Your task to perform on an android device: Open my contact list Image 0: 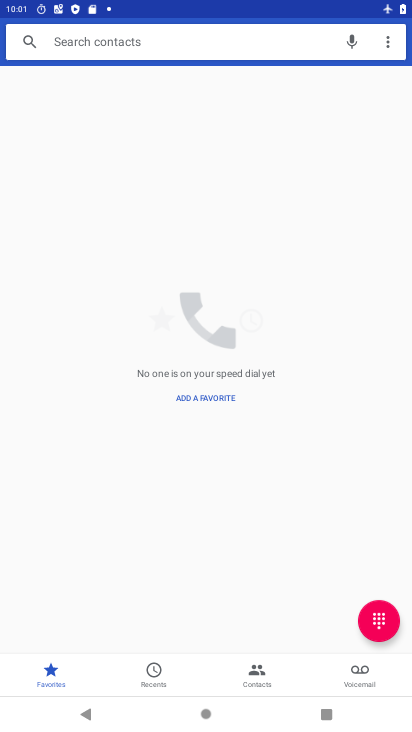
Step 0: click (260, 669)
Your task to perform on an android device: Open my contact list Image 1: 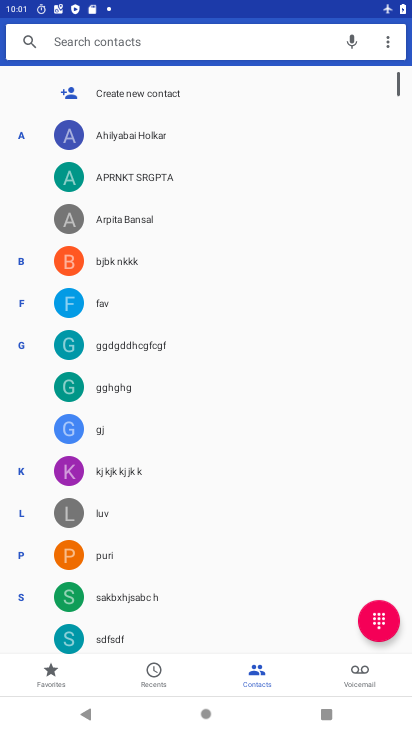
Step 1: task complete